Your task to perform on an android device: What's the weather? Image 0: 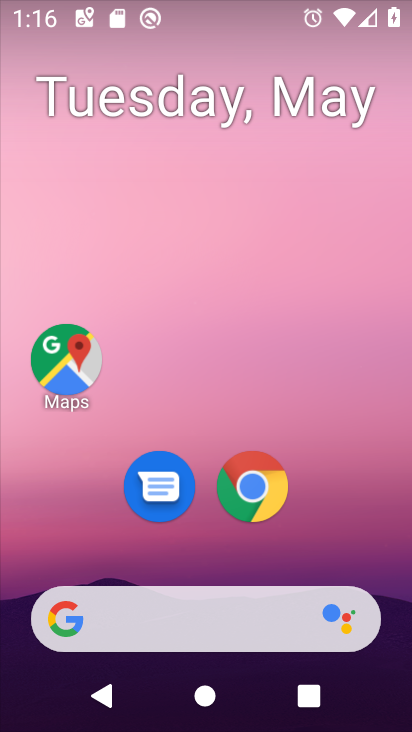
Step 0: click (276, 625)
Your task to perform on an android device: What's the weather? Image 1: 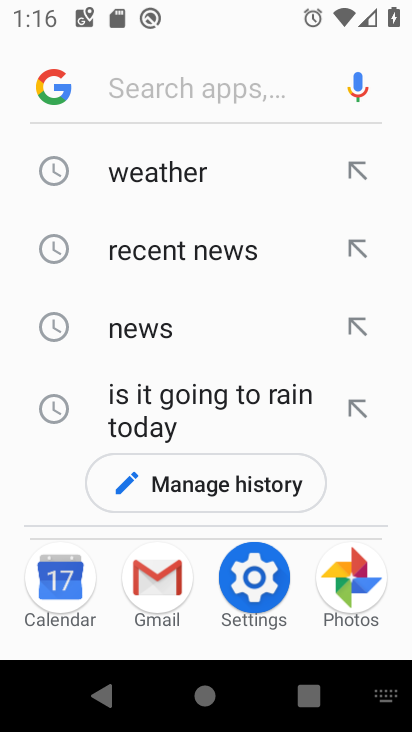
Step 1: click (127, 172)
Your task to perform on an android device: What's the weather? Image 2: 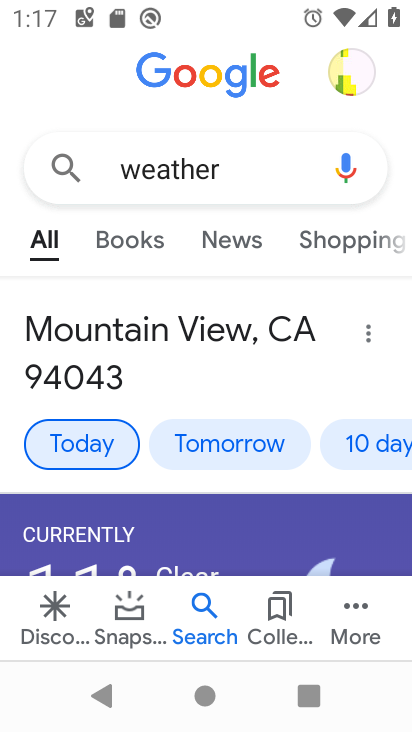
Step 2: task complete